Your task to perform on an android device: turn off location history Image 0: 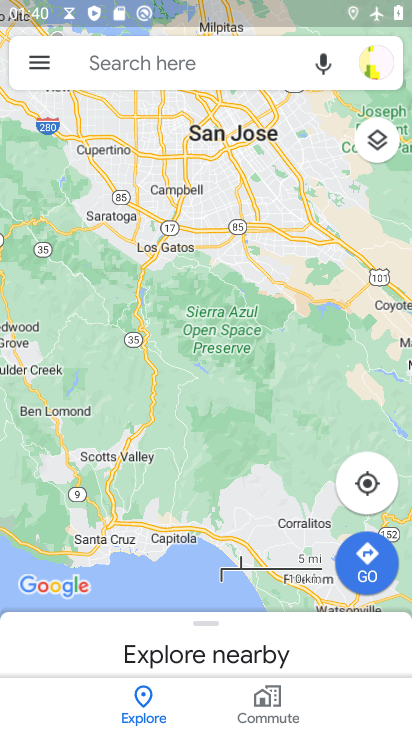
Step 0: press home button
Your task to perform on an android device: turn off location history Image 1: 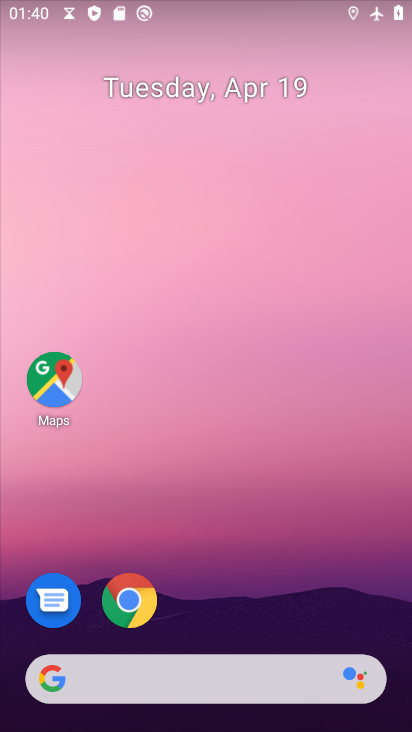
Step 1: drag from (188, 582) to (174, 32)
Your task to perform on an android device: turn off location history Image 2: 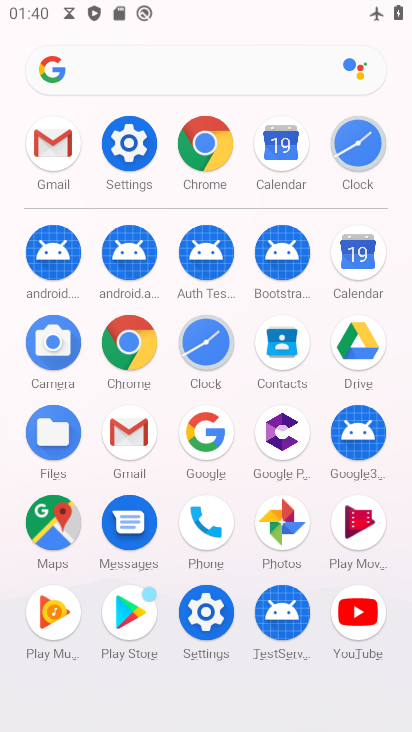
Step 2: click (205, 636)
Your task to perform on an android device: turn off location history Image 3: 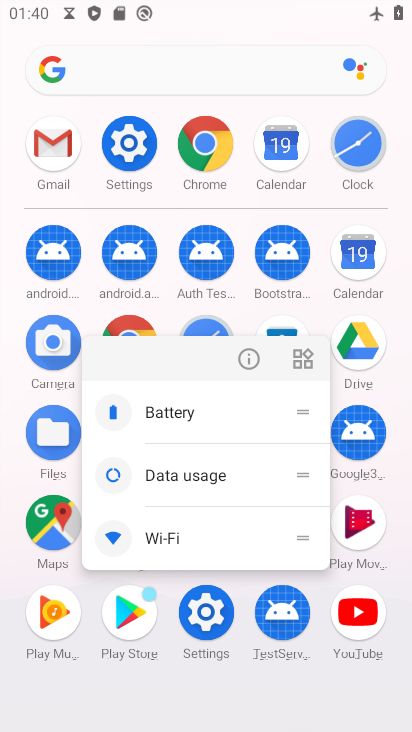
Step 3: click (205, 623)
Your task to perform on an android device: turn off location history Image 4: 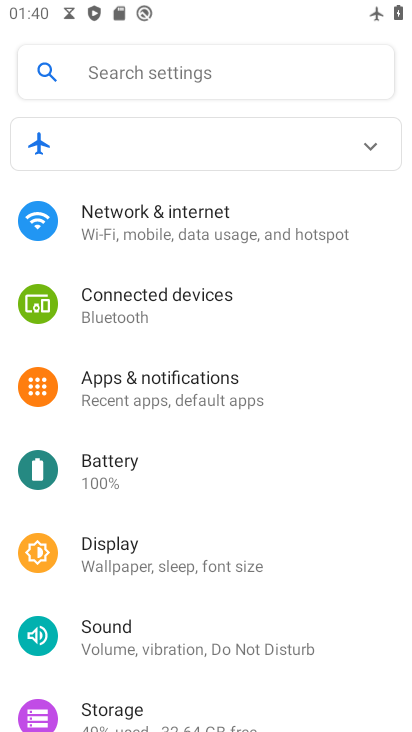
Step 4: drag from (243, 672) to (227, 253)
Your task to perform on an android device: turn off location history Image 5: 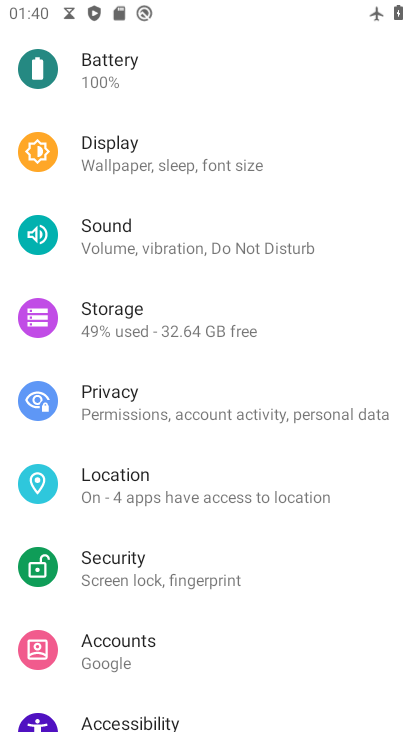
Step 5: click (132, 472)
Your task to perform on an android device: turn off location history Image 6: 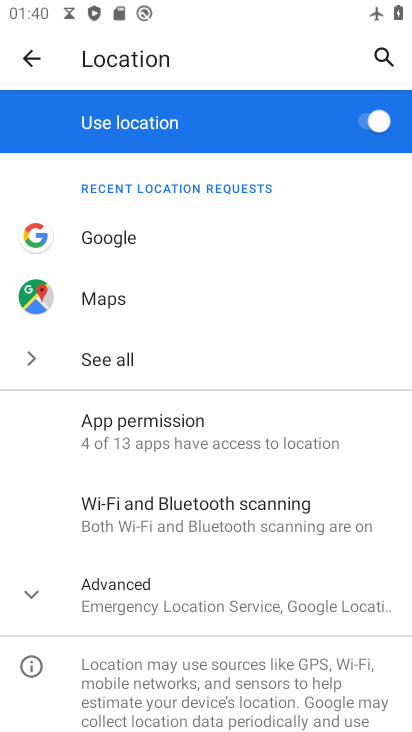
Step 6: click (219, 587)
Your task to perform on an android device: turn off location history Image 7: 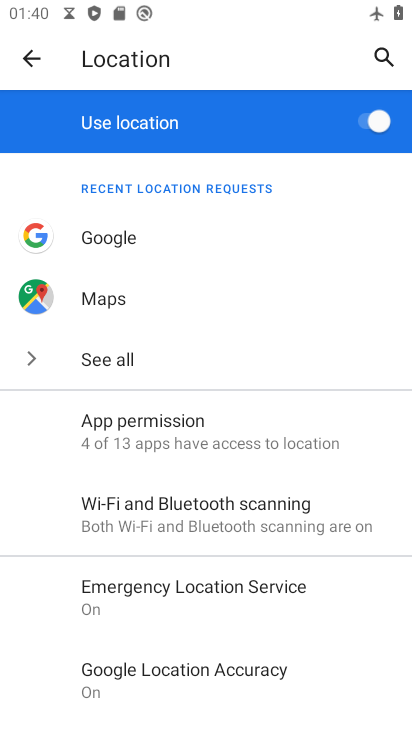
Step 7: drag from (235, 578) to (224, 227)
Your task to perform on an android device: turn off location history Image 8: 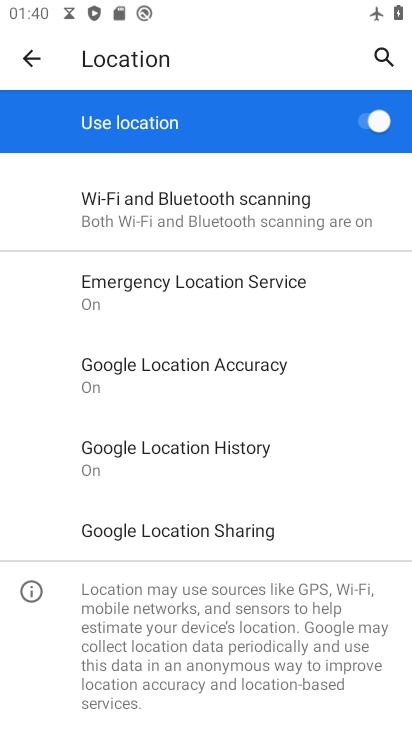
Step 8: click (235, 462)
Your task to perform on an android device: turn off location history Image 9: 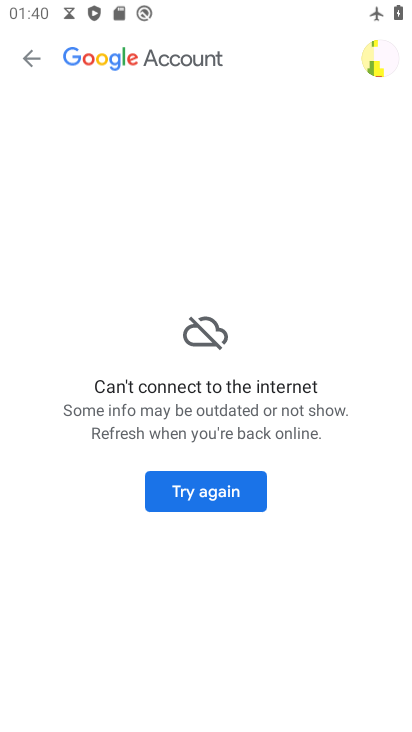
Step 9: click (245, 489)
Your task to perform on an android device: turn off location history Image 10: 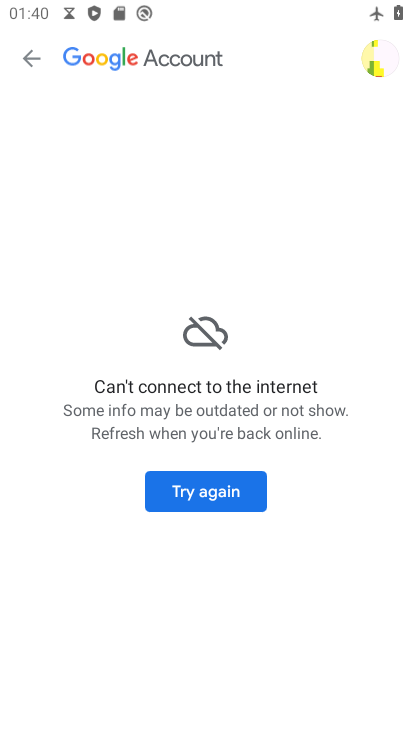
Step 10: task complete